Your task to perform on an android device: find photos in the google photos app Image 0: 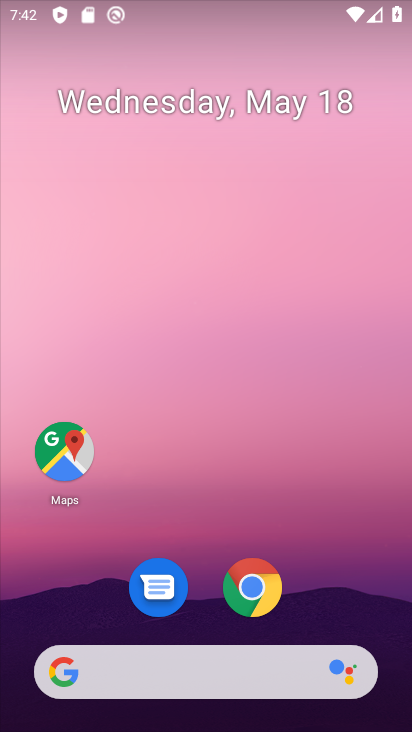
Step 0: drag from (232, 630) to (355, 109)
Your task to perform on an android device: find photos in the google photos app Image 1: 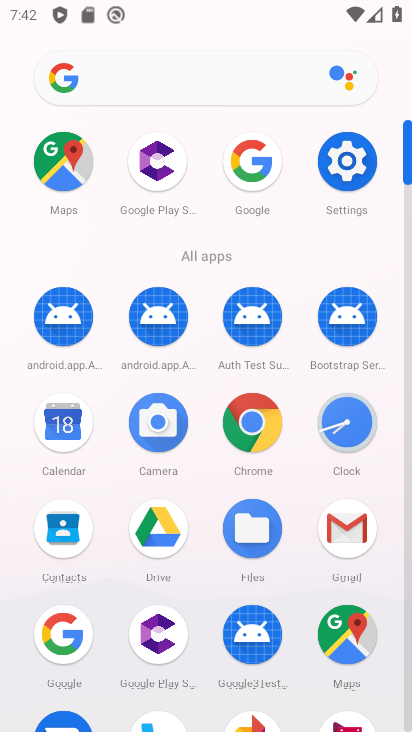
Step 1: drag from (287, 540) to (326, 178)
Your task to perform on an android device: find photos in the google photos app Image 2: 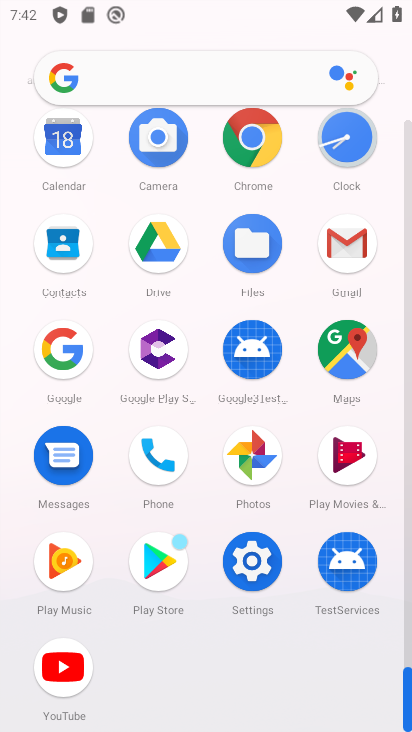
Step 2: click (266, 462)
Your task to perform on an android device: find photos in the google photos app Image 3: 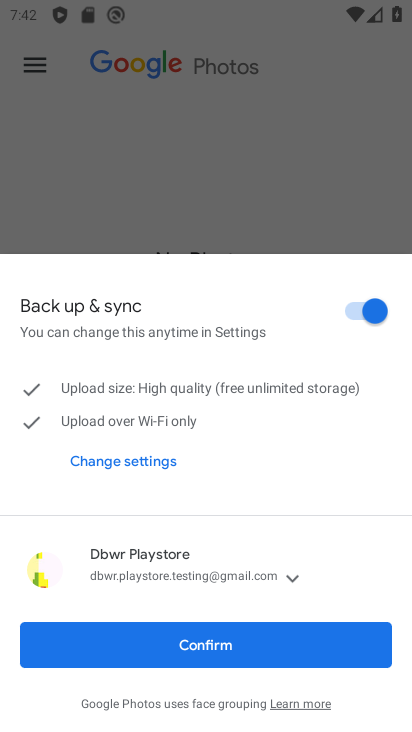
Step 3: click (220, 626)
Your task to perform on an android device: find photos in the google photos app Image 4: 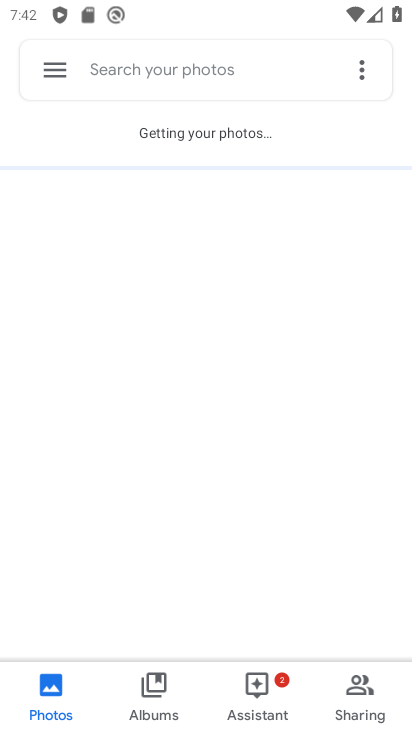
Step 4: task complete